Your task to perform on an android device: Do I have any events tomorrow? Image 0: 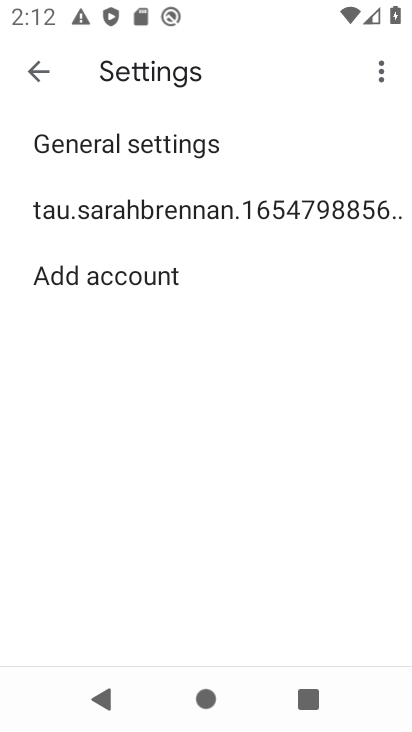
Step 0: press home button
Your task to perform on an android device: Do I have any events tomorrow? Image 1: 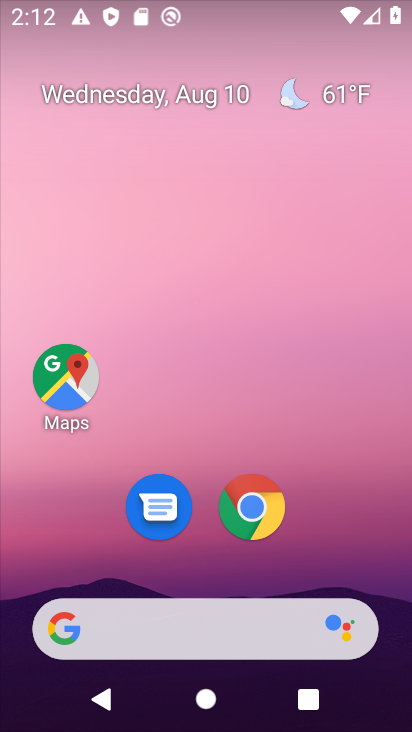
Step 1: drag from (339, 530) to (282, 51)
Your task to perform on an android device: Do I have any events tomorrow? Image 2: 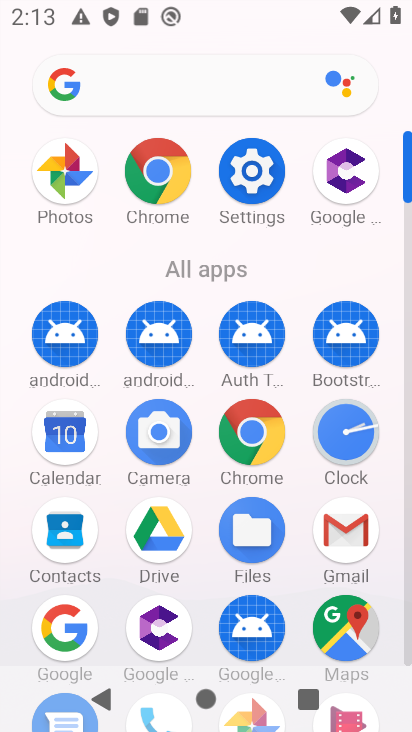
Step 2: click (55, 435)
Your task to perform on an android device: Do I have any events tomorrow? Image 3: 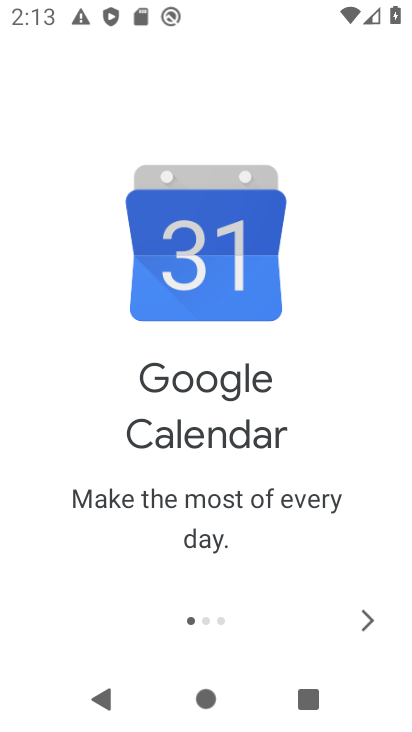
Step 3: click (365, 618)
Your task to perform on an android device: Do I have any events tomorrow? Image 4: 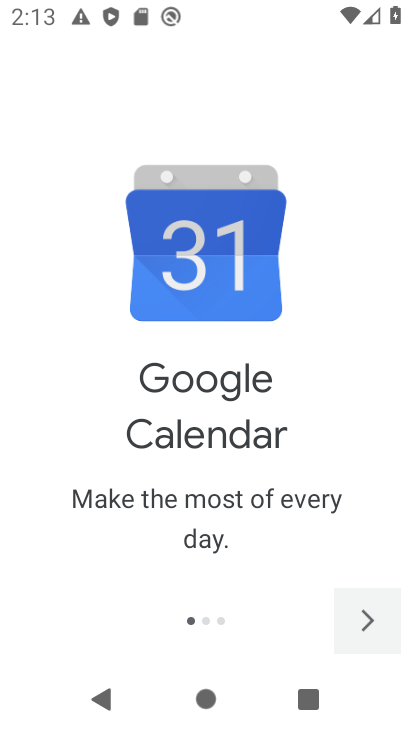
Step 4: click (365, 618)
Your task to perform on an android device: Do I have any events tomorrow? Image 5: 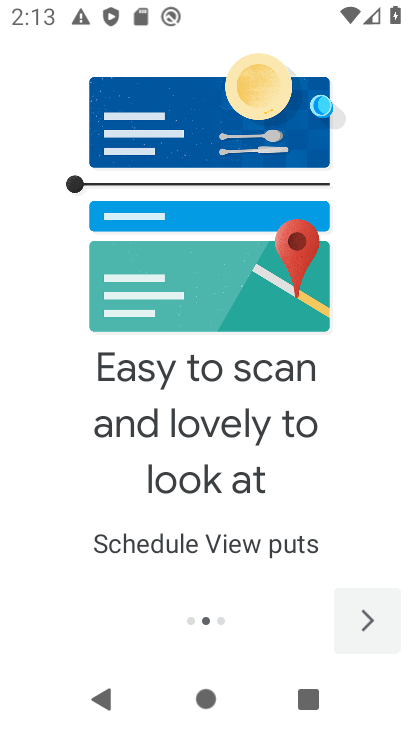
Step 5: click (365, 617)
Your task to perform on an android device: Do I have any events tomorrow? Image 6: 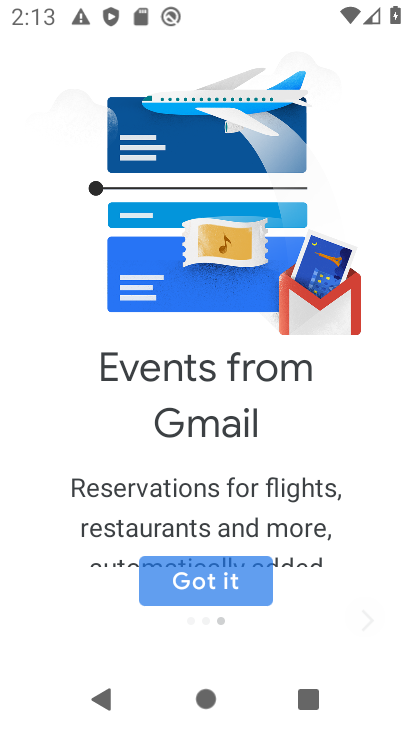
Step 6: click (365, 617)
Your task to perform on an android device: Do I have any events tomorrow? Image 7: 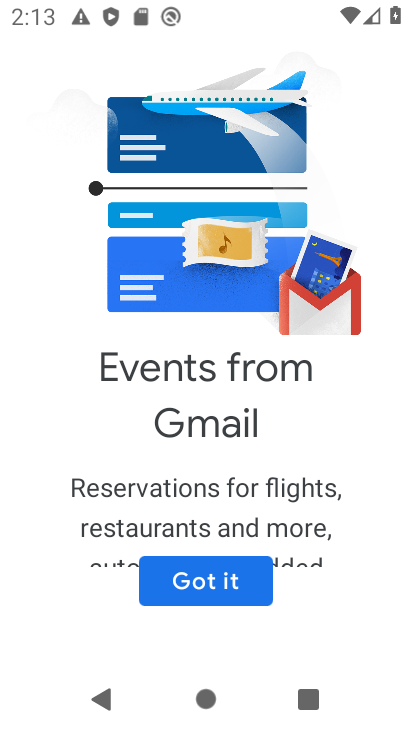
Step 7: click (222, 572)
Your task to perform on an android device: Do I have any events tomorrow? Image 8: 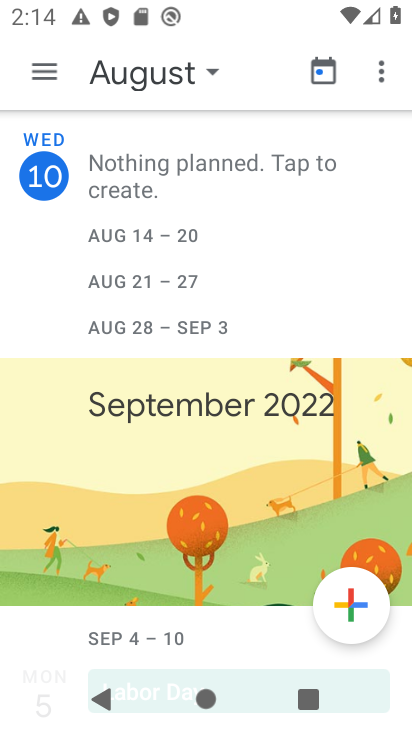
Step 8: click (41, 64)
Your task to perform on an android device: Do I have any events tomorrow? Image 9: 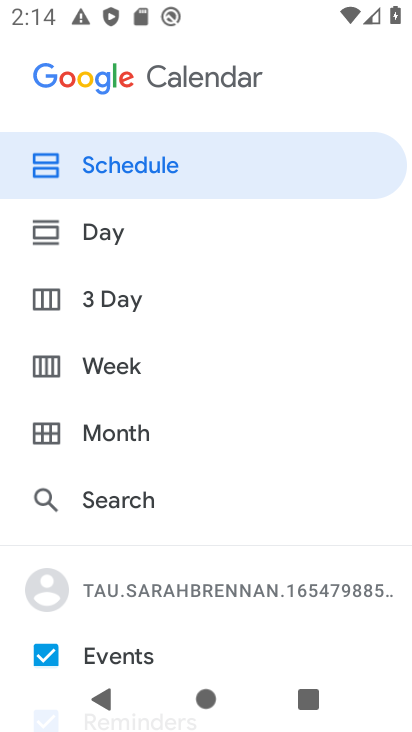
Step 9: drag from (172, 601) to (226, 112)
Your task to perform on an android device: Do I have any events tomorrow? Image 10: 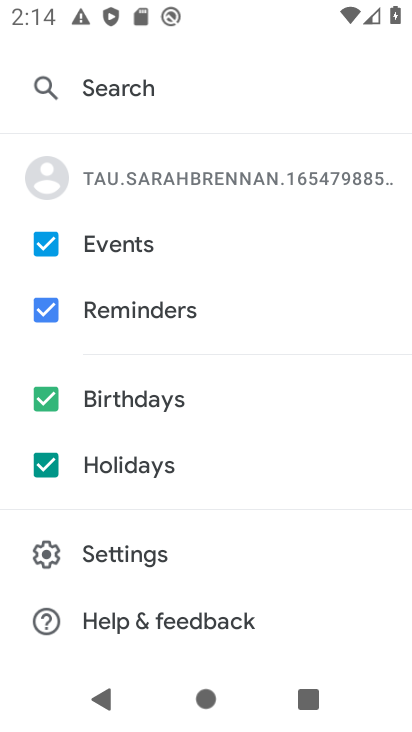
Step 10: drag from (247, 201) to (250, 541)
Your task to perform on an android device: Do I have any events tomorrow? Image 11: 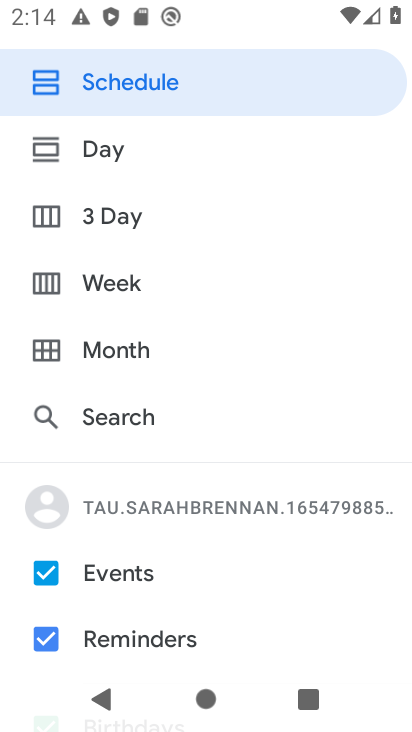
Step 11: click (114, 211)
Your task to perform on an android device: Do I have any events tomorrow? Image 12: 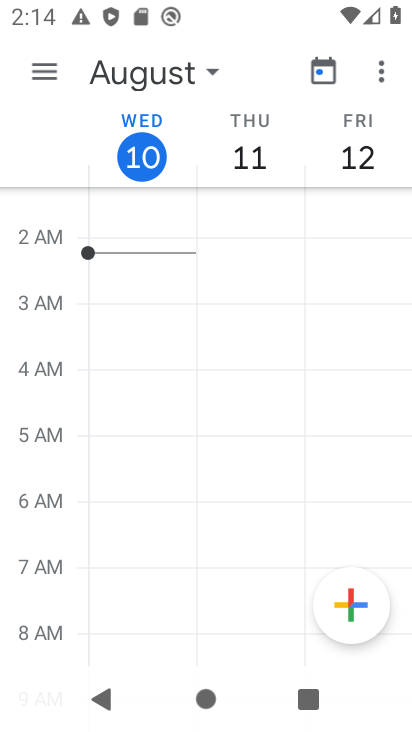
Step 12: click (260, 151)
Your task to perform on an android device: Do I have any events tomorrow? Image 13: 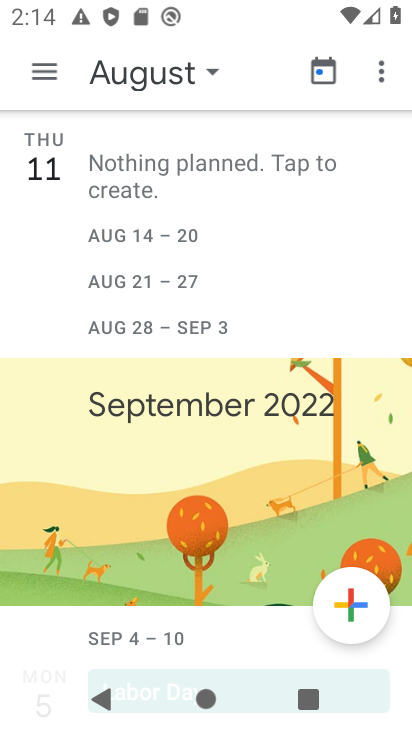
Step 13: task complete